Your task to perform on an android device: allow notifications from all sites in the chrome app Image 0: 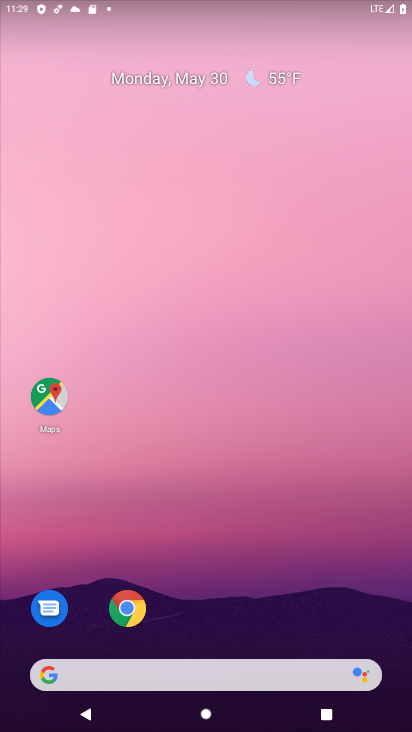
Step 0: click (130, 610)
Your task to perform on an android device: allow notifications from all sites in the chrome app Image 1: 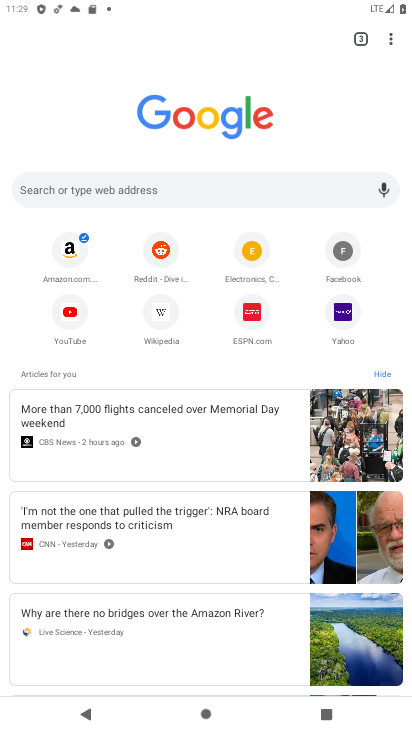
Step 1: click (392, 39)
Your task to perform on an android device: allow notifications from all sites in the chrome app Image 2: 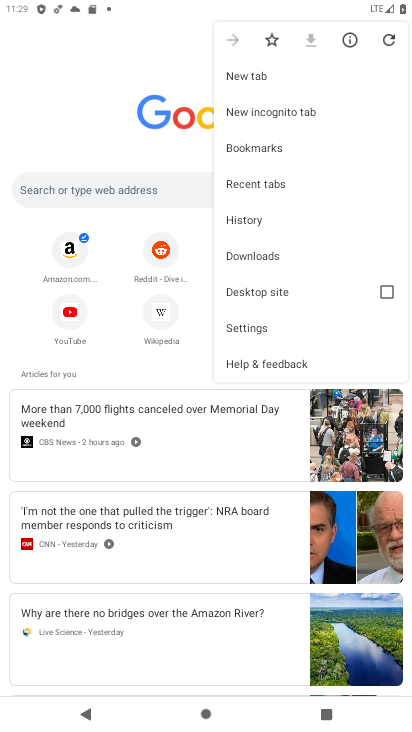
Step 2: click (253, 331)
Your task to perform on an android device: allow notifications from all sites in the chrome app Image 3: 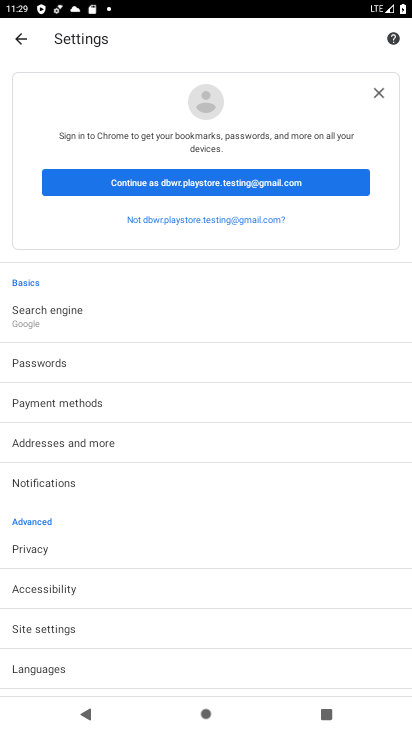
Step 3: click (58, 635)
Your task to perform on an android device: allow notifications from all sites in the chrome app Image 4: 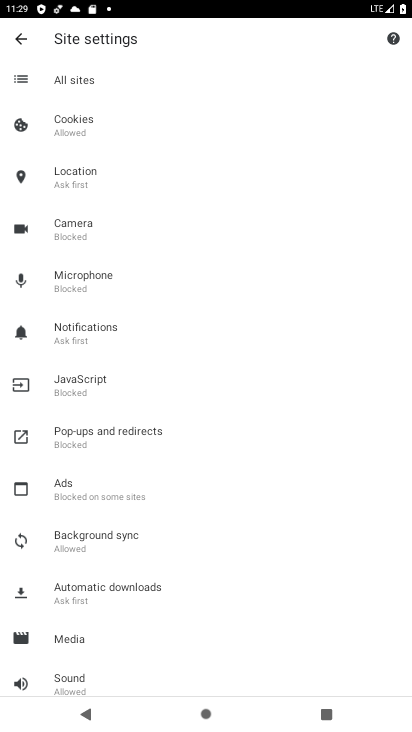
Step 4: click (95, 332)
Your task to perform on an android device: allow notifications from all sites in the chrome app Image 5: 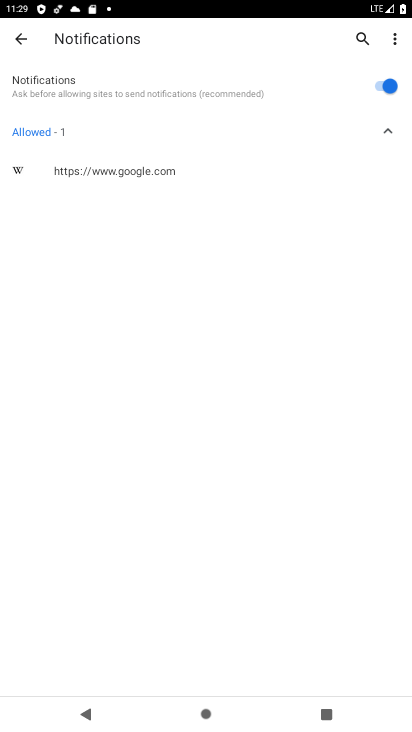
Step 5: task complete